Your task to perform on an android device: allow cookies in the chrome app Image 0: 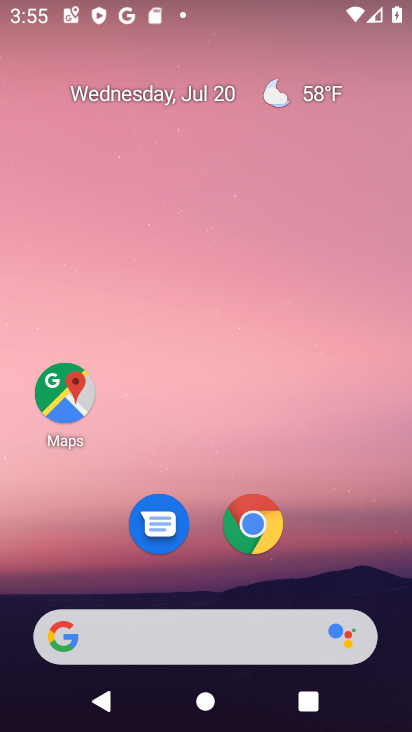
Step 0: click (255, 524)
Your task to perform on an android device: allow cookies in the chrome app Image 1: 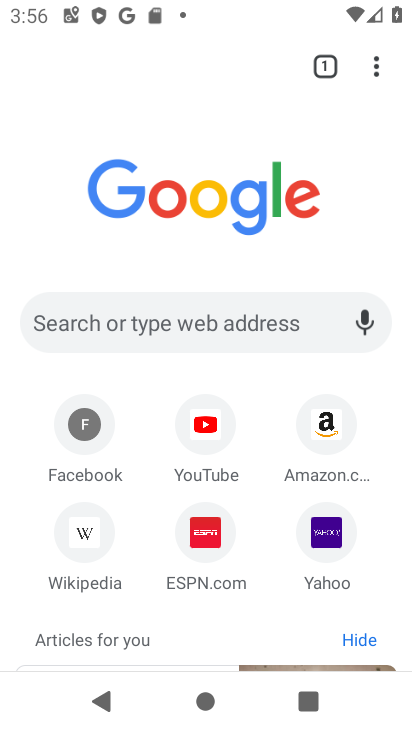
Step 1: click (377, 72)
Your task to perform on an android device: allow cookies in the chrome app Image 2: 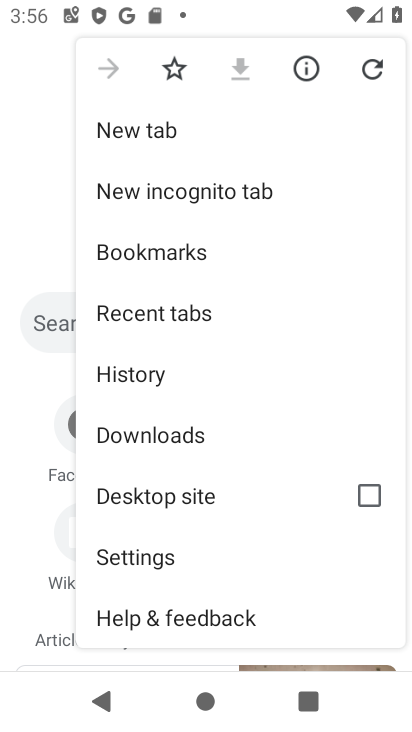
Step 2: click (167, 559)
Your task to perform on an android device: allow cookies in the chrome app Image 3: 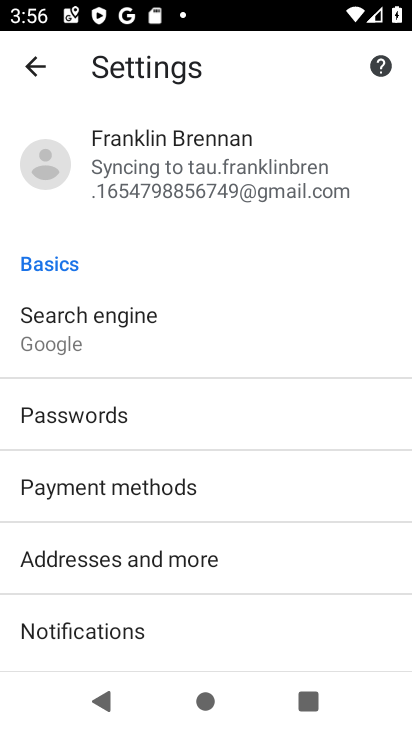
Step 3: drag from (247, 616) to (259, 327)
Your task to perform on an android device: allow cookies in the chrome app Image 4: 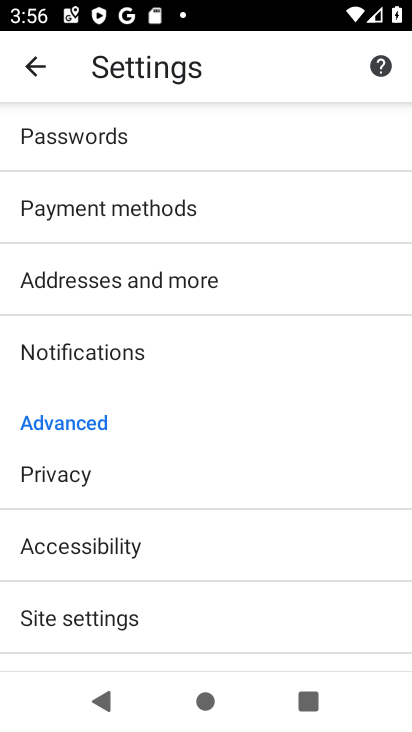
Step 4: click (130, 612)
Your task to perform on an android device: allow cookies in the chrome app Image 5: 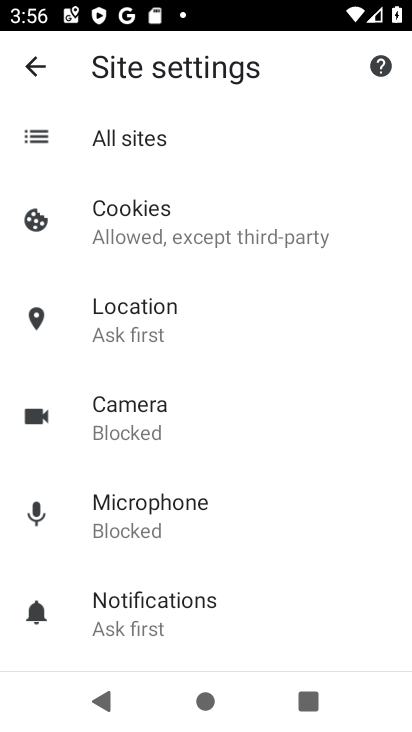
Step 5: click (204, 218)
Your task to perform on an android device: allow cookies in the chrome app Image 6: 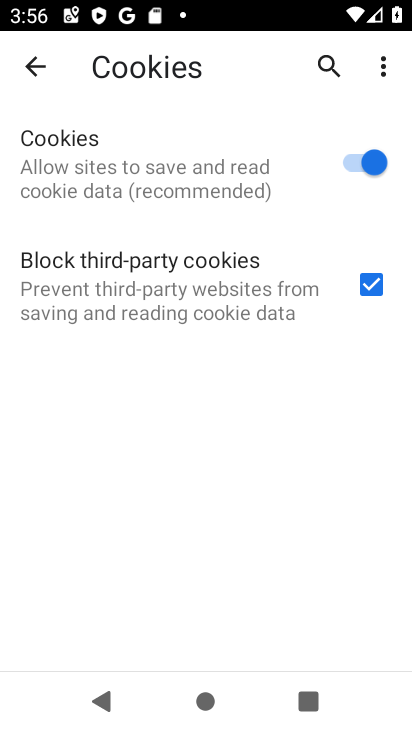
Step 6: task complete